Your task to perform on an android device: turn off location history Image 0: 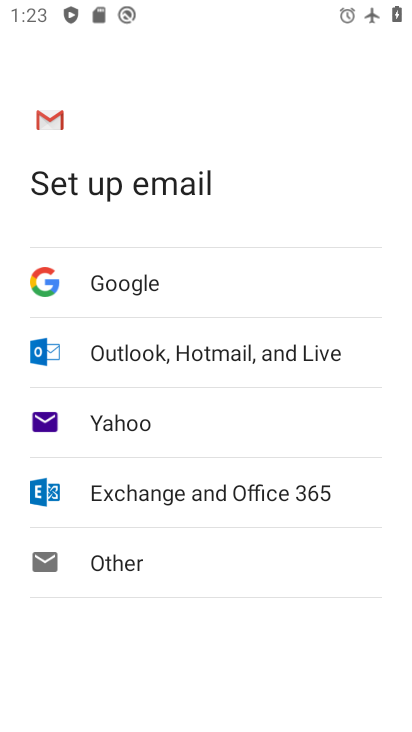
Step 0: press home button
Your task to perform on an android device: turn off location history Image 1: 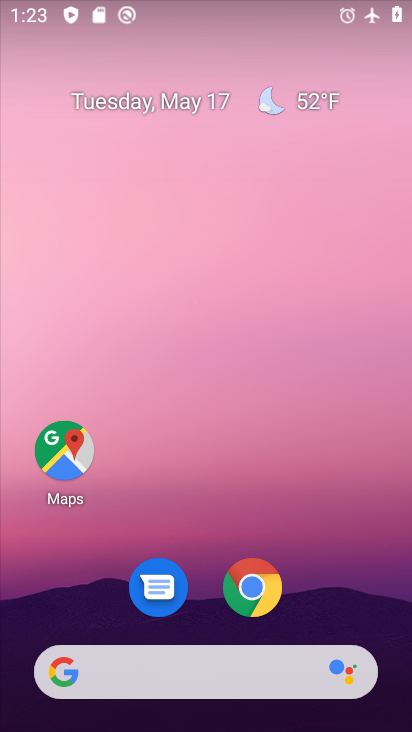
Step 1: drag from (373, 587) to (218, 169)
Your task to perform on an android device: turn off location history Image 2: 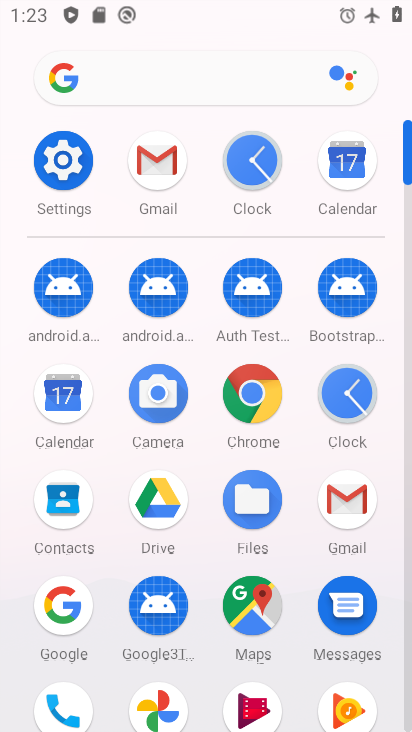
Step 2: click (46, 167)
Your task to perform on an android device: turn off location history Image 3: 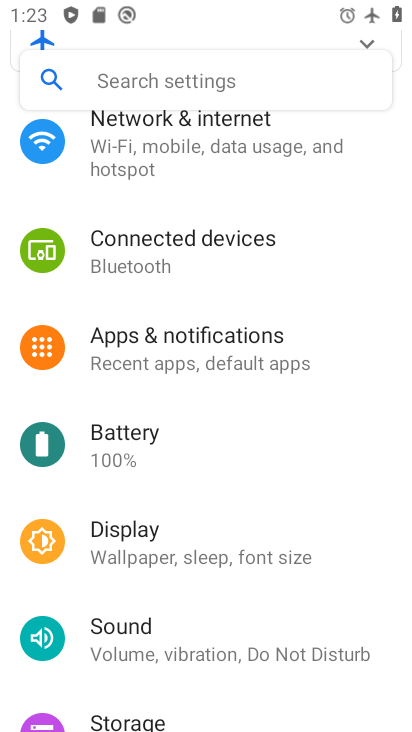
Step 3: drag from (141, 608) to (132, 354)
Your task to perform on an android device: turn off location history Image 4: 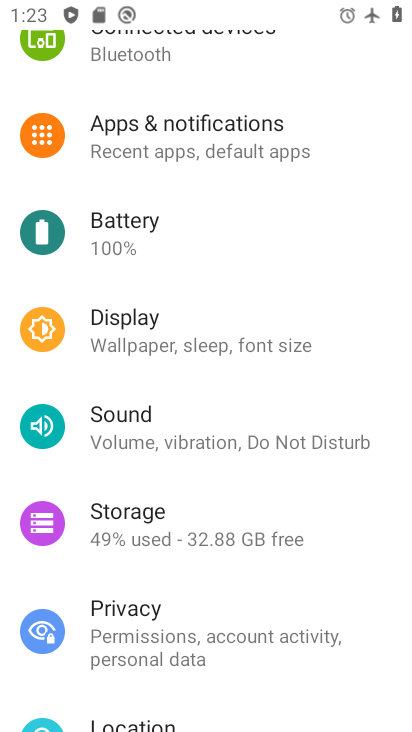
Step 4: click (200, 701)
Your task to perform on an android device: turn off location history Image 5: 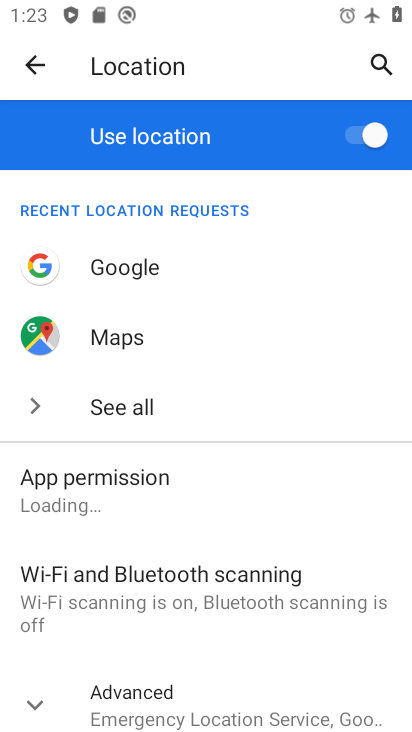
Step 5: drag from (253, 521) to (166, 268)
Your task to perform on an android device: turn off location history Image 6: 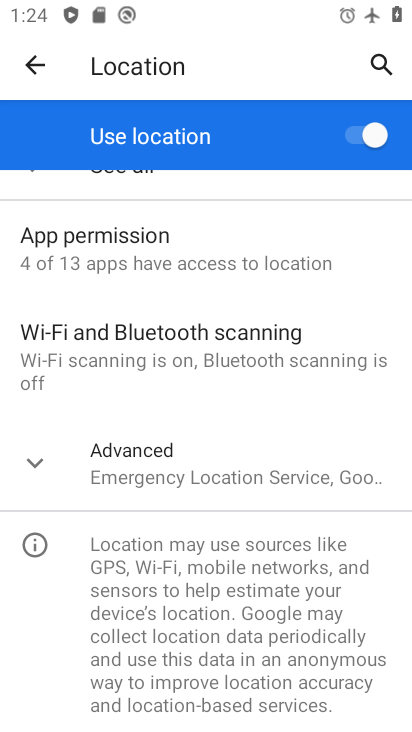
Step 6: click (122, 523)
Your task to perform on an android device: turn off location history Image 7: 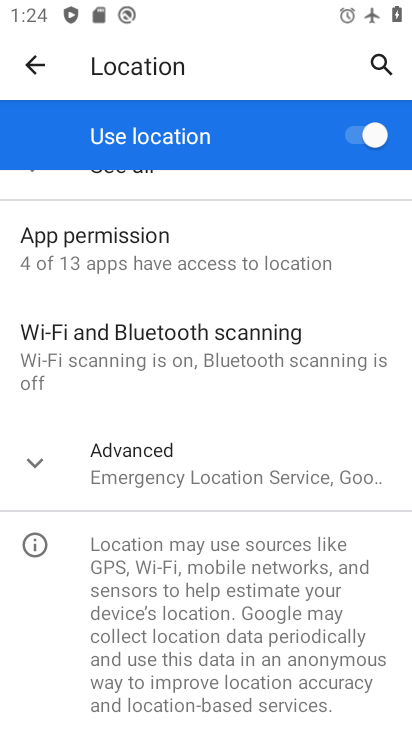
Step 7: drag from (145, 618) to (116, 479)
Your task to perform on an android device: turn off location history Image 8: 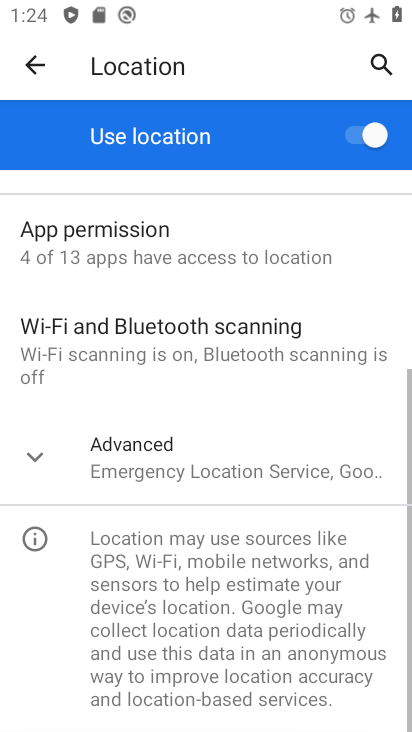
Step 8: click (116, 479)
Your task to perform on an android device: turn off location history Image 9: 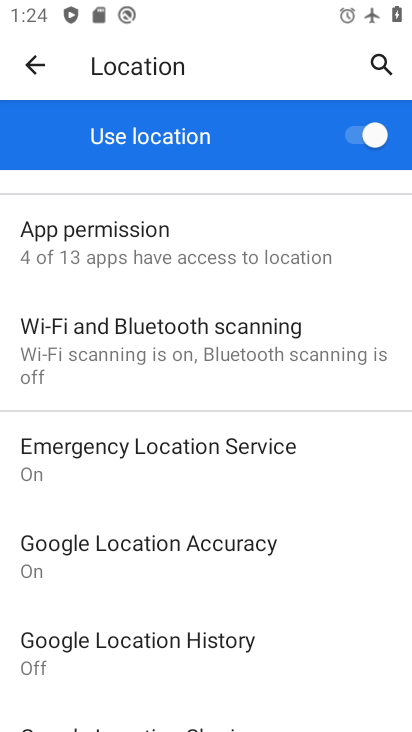
Step 9: click (123, 616)
Your task to perform on an android device: turn off location history Image 10: 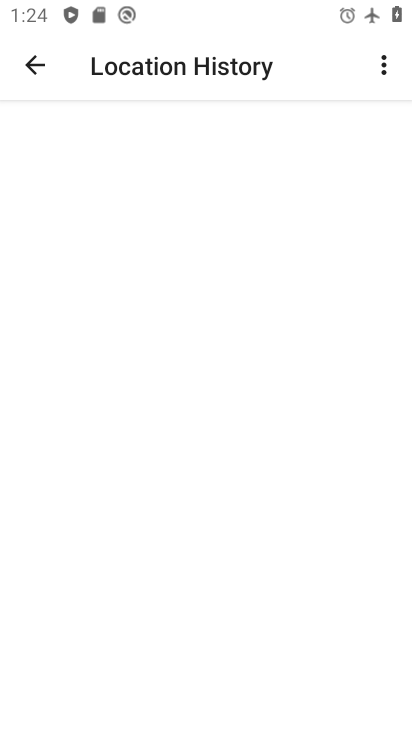
Step 10: task complete